Your task to perform on an android device: turn pop-ups on in chrome Image 0: 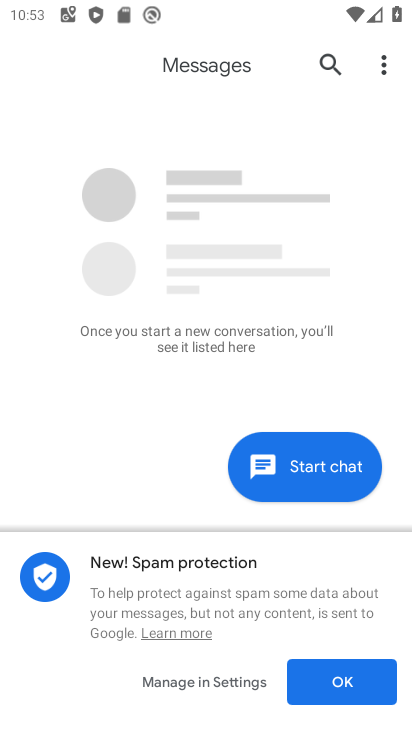
Step 0: press home button
Your task to perform on an android device: turn pop-ups on in chrome Image 1: 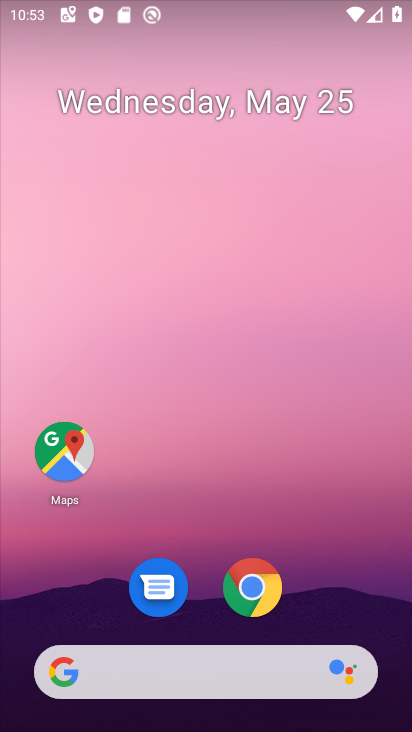
Step 1: drag from (329, 605) to (255, 16)
Your task to perform on an android device: turn pop-ups on in chrome Image 2: 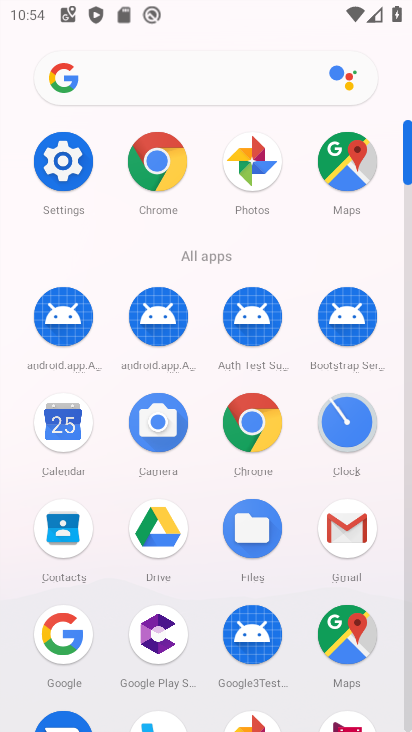
Step 2: click (154, 155)
Your task to perform on an android device: turn pop-ups on in chrome Image 3: 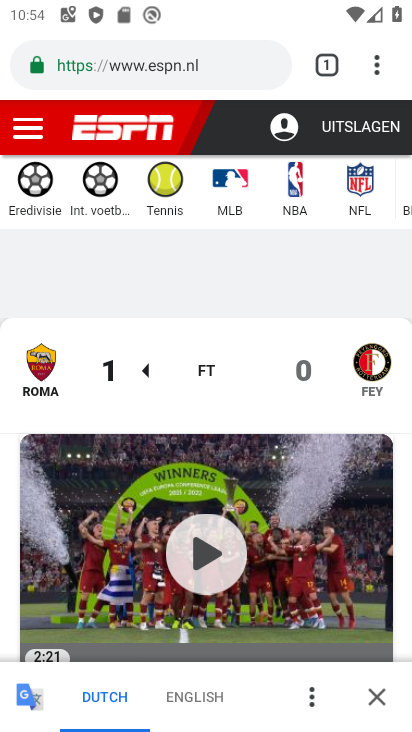
Step 3: drag from (375, 54) to (157, 630)
Your task to perform on an android device: turn pop-ups on in chrome Image 4: 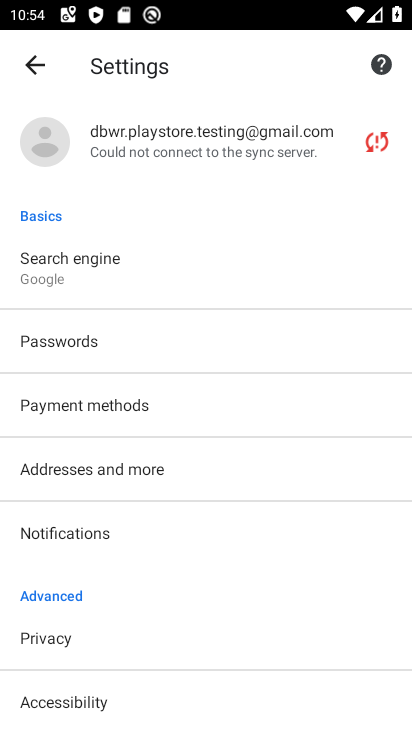
Step 4: drag from (211, 579) to (222, 253)
Your task to perform on an android device: turn pop-ups on in chrome Image 5: 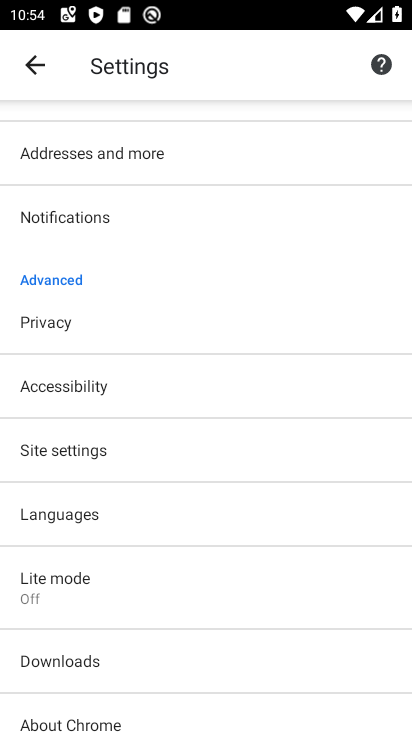
Step 5: click (96, 444)
Your task to perform on an android device: turn pop-ups on in chrome Image 6: 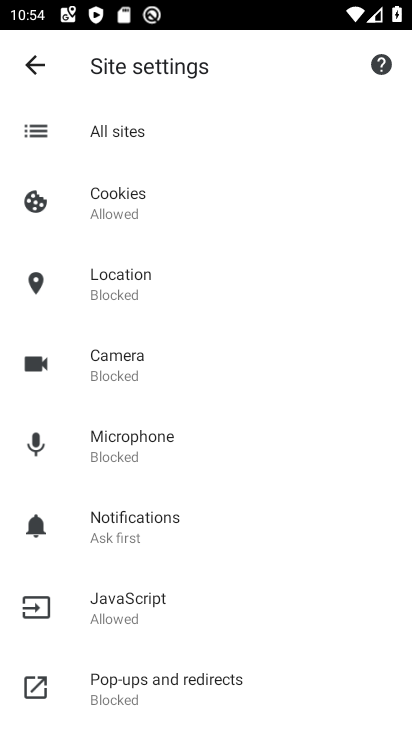
Step 6: click (135, 691)
Your task to perform on an android device: turn pop-ups on in chrome Image 7: 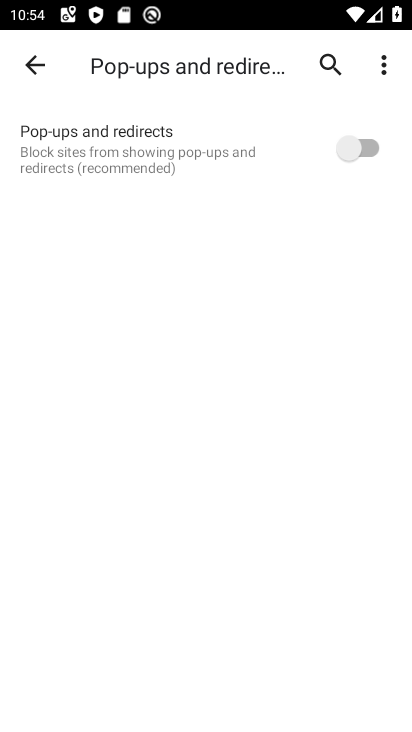
Step 7: click (358, 136)
Your task to perform on an android device: turn pop-ups on in chrome Image 8: 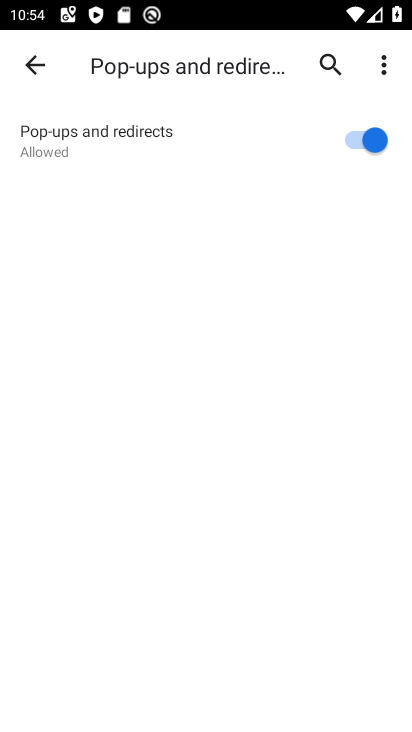
Step 8: task complete